Your task to perform on an android device: Go to Android settings Image 0: 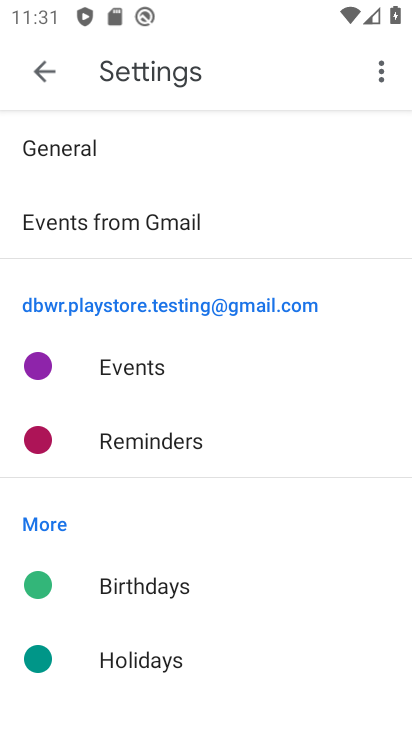
Step 0: press home button
Your task to perform on an android device: Go to Android settings Image 1: 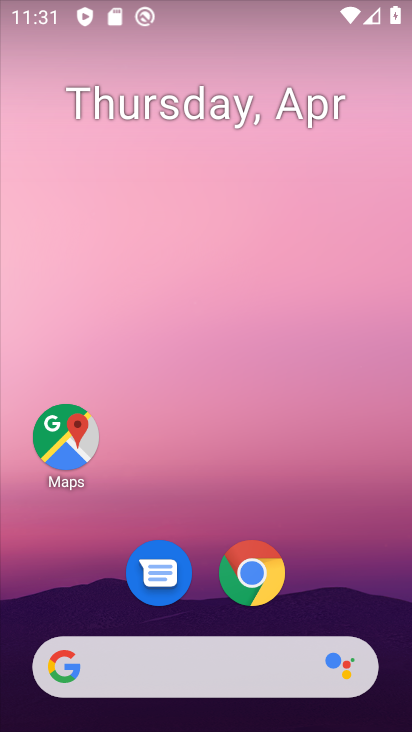
Step 1: drag from (289, 518) to (260, 138)
Your task to perform on an android device: Go to Android settings Image 2: 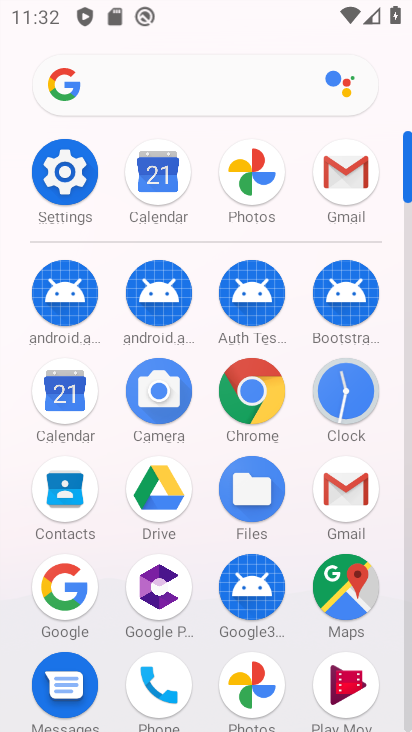
Step 2: click (71, 175)
Your task to perform on an android device: Go to Android settings Image 3: 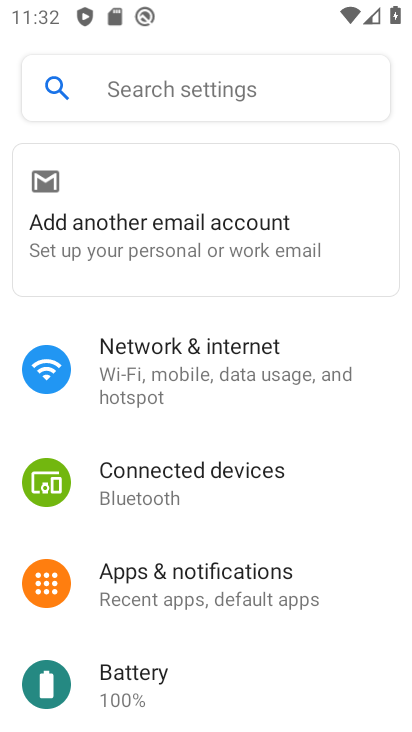
Step 3: drag from (301, 660) to (276, 123)
Your task to perform on an android device: Go to Android settings Image 4: 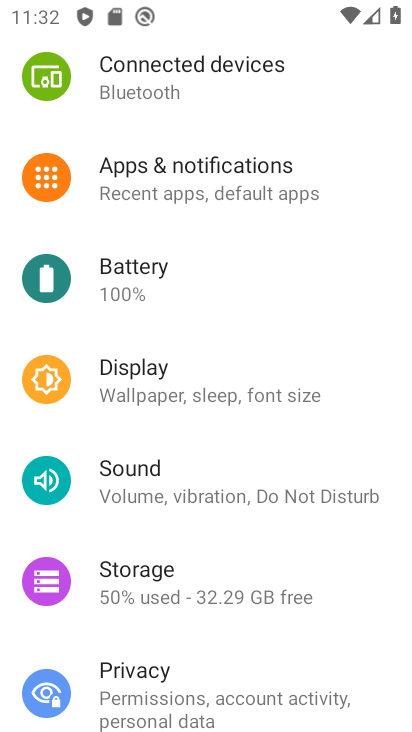
Step 4: drag from (272, 663) to (272, 197)
Your task to perform on an android device: Go to Android settings Image 5: 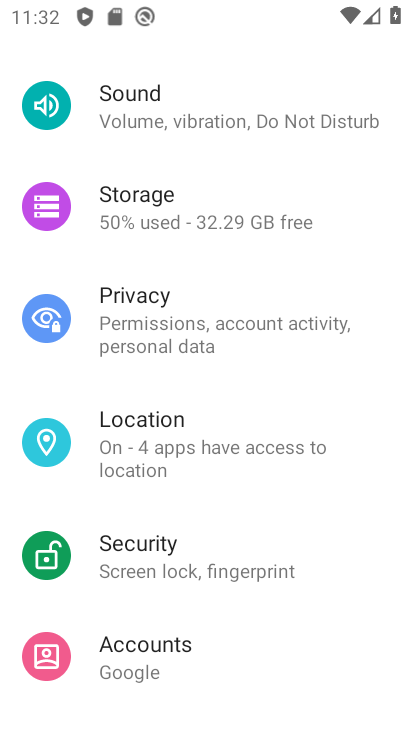
Step 5: drag from (267, 617) to (264, 168)
Your task to perform on an android device: Go to Android settings Image 6: 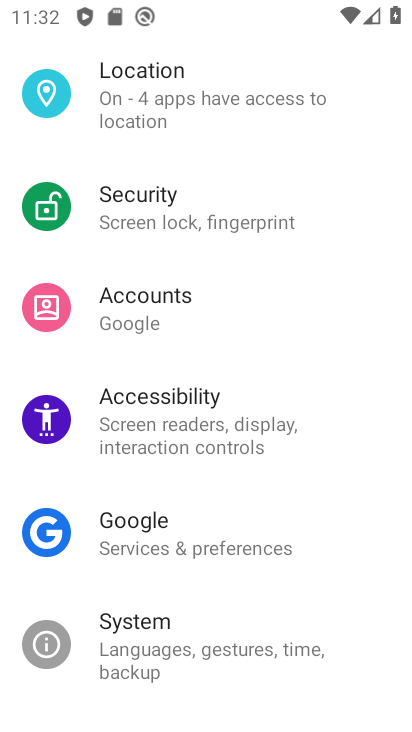
Step 6: click (247, 641)
Your task to perform on an android device: Go to Android settings Image 7: 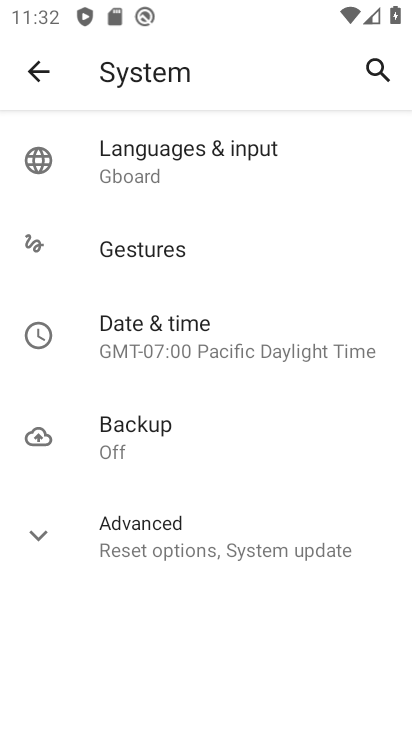
Step 7: click (33, 71)
Your task to perform on an android device: Go to Android settings Image 8: 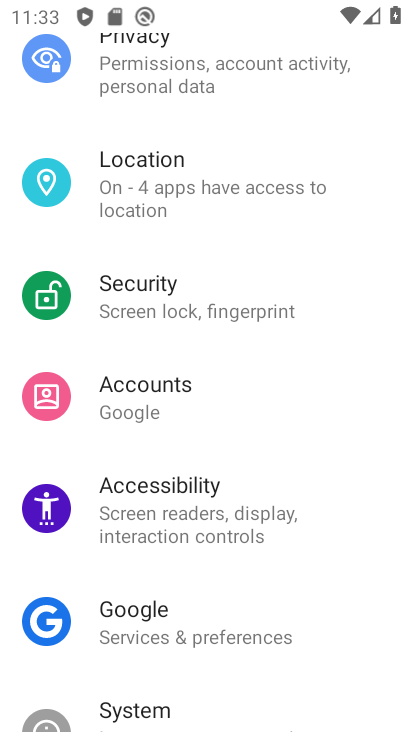
Step 8: drag from (256, 655) to (233, 126)
Your task to perform on an android device: Go to Android settings Image 9: 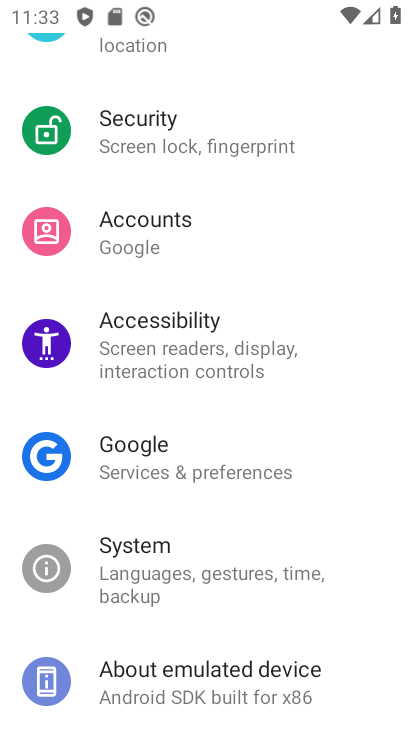
Step 9: click (197, 686)
Your task to perform on an android device: Go to Android settings Image 10: 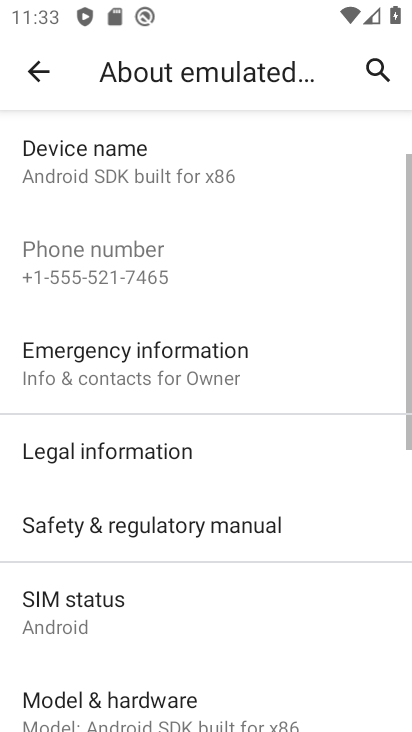
Step 10: drag from (223, 614) to (227, 217)
Your task to perform on an android device: Go to Android settings Image 11: 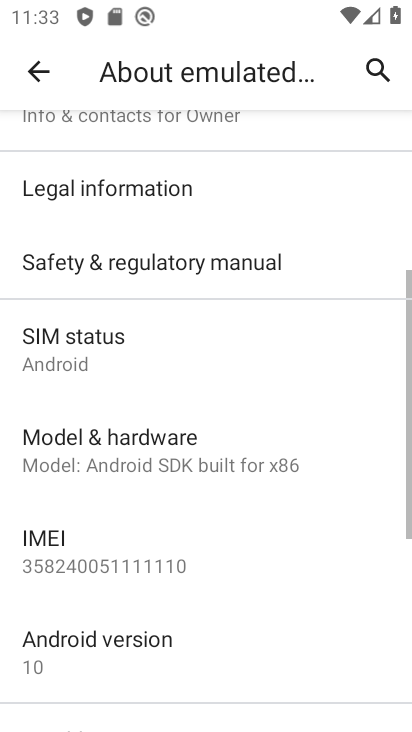
Step 11: click (120, 657)
Your task to perform on an android device: Go to Android settings Image 12: 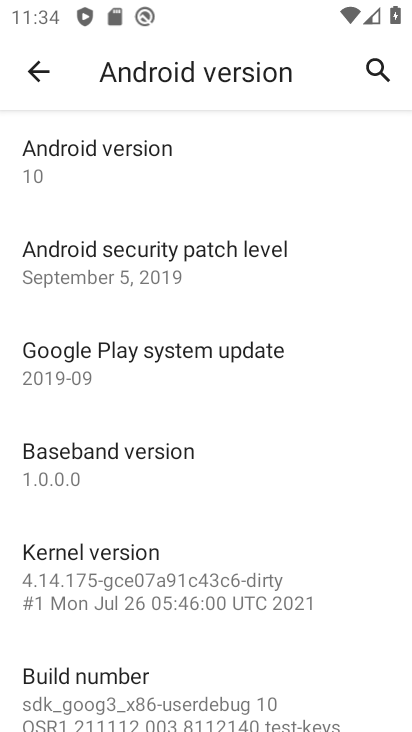
Step 12: task complete